Your task to perform on an android device: check data usage Image 0: 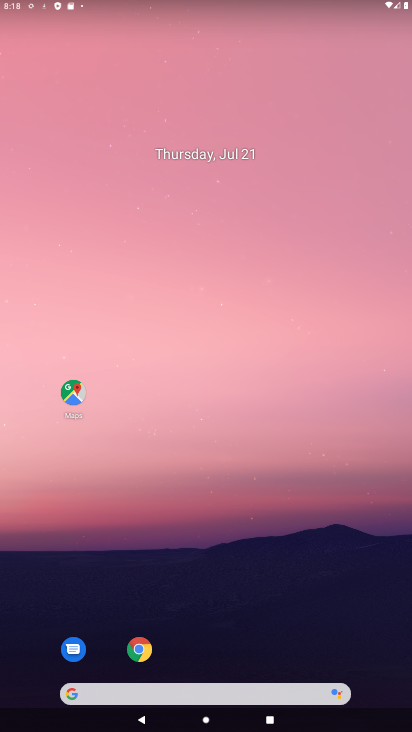
Step 0: drag from (197, 670) to (173, 161)
Your task to perform on an android device: check data usage Image 1: 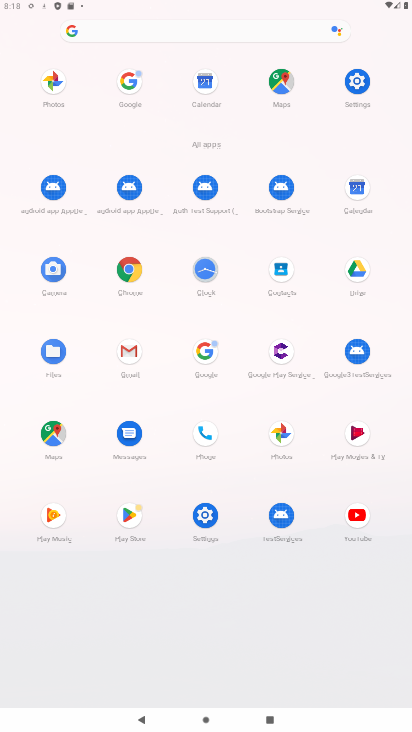
Step 1: click (354, 85)
Your task to perform on an android device: check data usage Image 2: 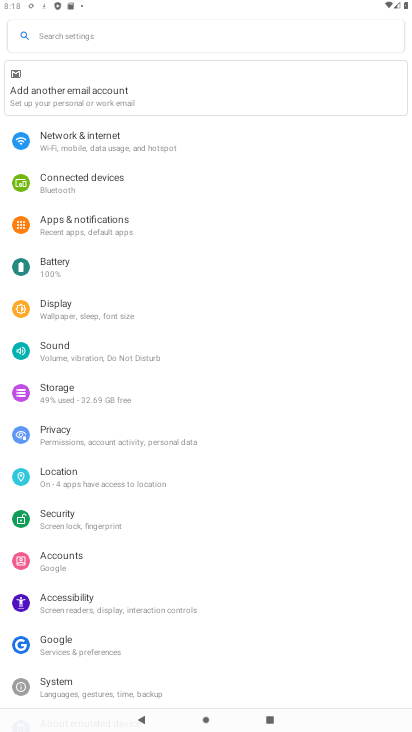
Step 2: click (91, 129)
Your task to perform on an android device: check data usage Image 3: 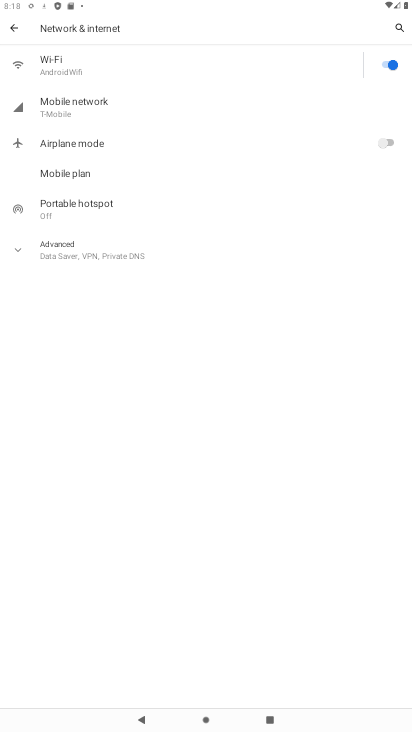
Step 3: click (97, 104)
Your task to perform on an android device: check data usage Image 4: 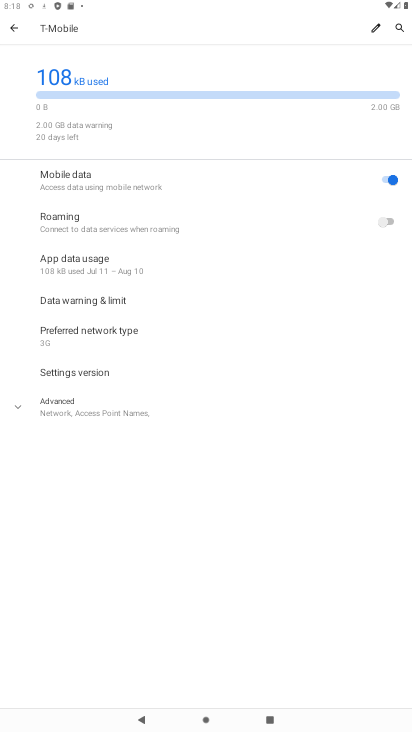
Step 4: task complete